Your task to perform on an android device: Open wifi settings Image 0: 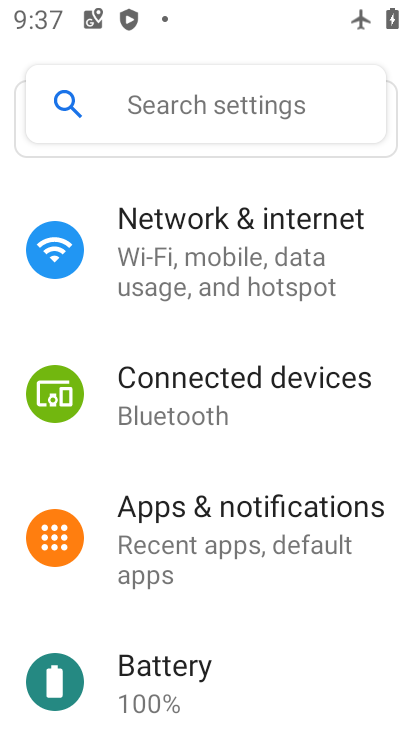
Step 0: click (186, 284)
Your task to perform on an android device: Open wifi settings Image 1: 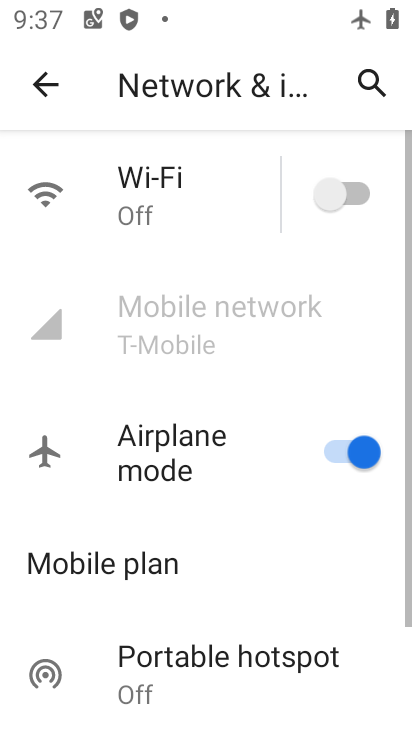
Step 1: click (155, 195)
Your task to perform on an android device: Open wifi settings Image 2: 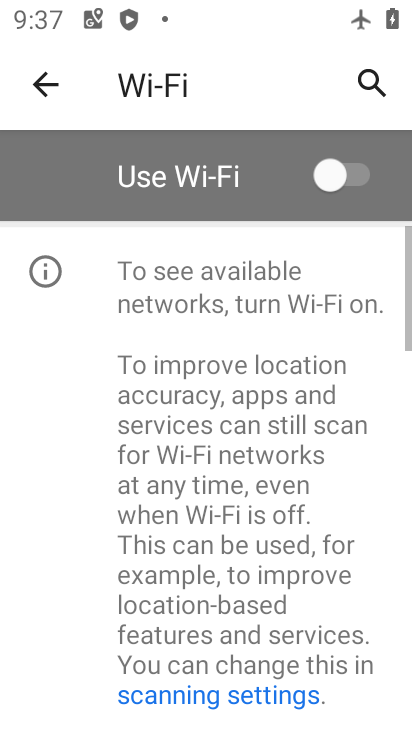
Step 2: task complete